Your task to perform on an android device: Open location settings Image 0: 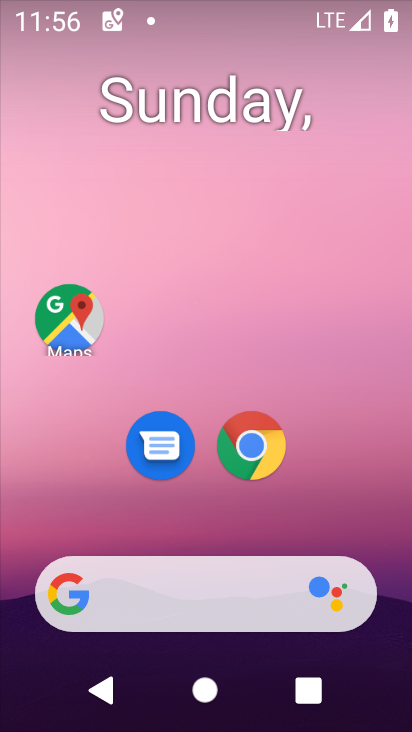
Step 0: drag from (337, 475) to (322, 241)
Your task to perform on an android device: Open location settings Image 1: 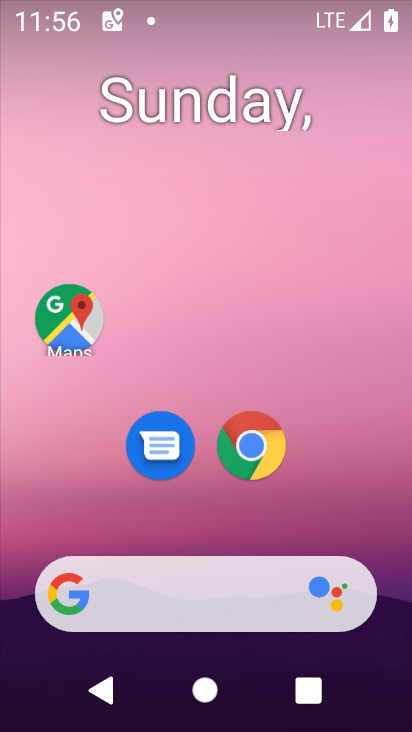
Step 1: drag from (306, 494) to (356, 94)
Your task to perform on an android device: Open location settings Image 2: 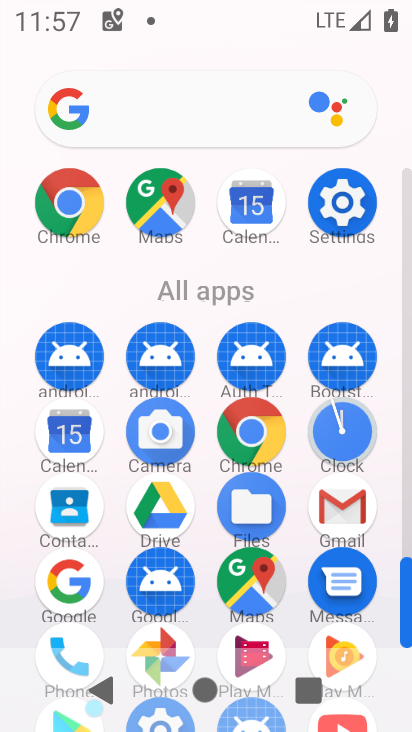
Step 2: click (350, 198)
Your task to perform on an android device: Open location settings Image 3: 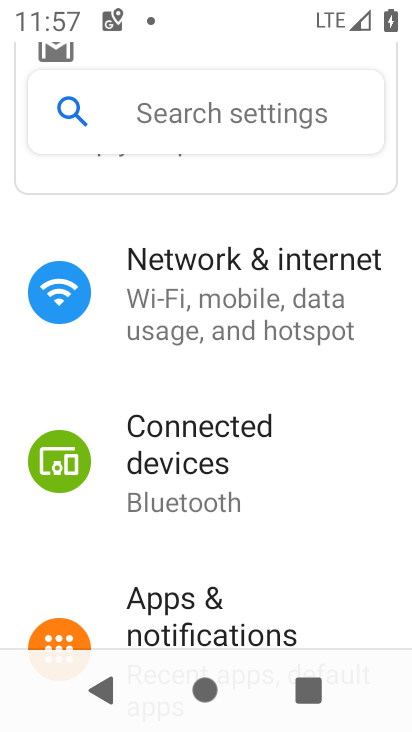
Step 3: drag from (282, 547) to (300, 221)
Your task to perform on an android device: Open location settings Image 4: 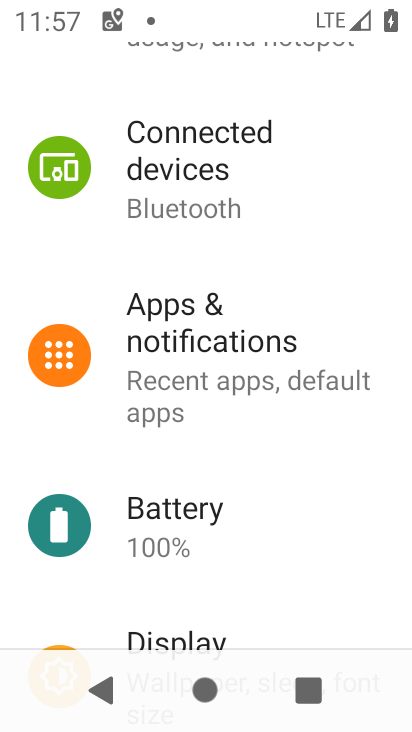
Step 4: drag from (222, 559) to (318, 227)
Your task to perform on an android device: Open location settings Image 5: 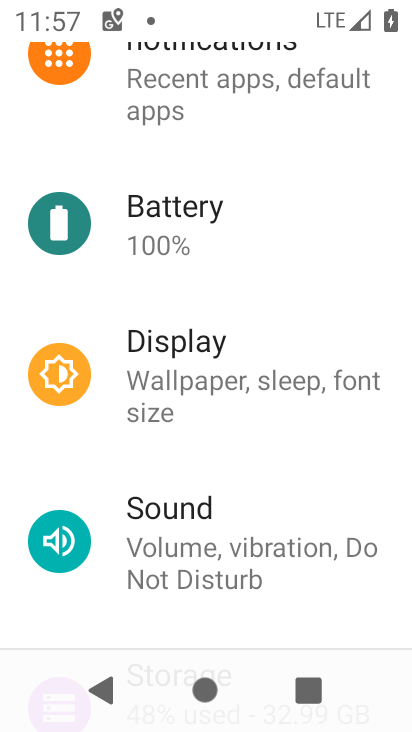
Step 5: drag from (225, 569) to (273, 232)
Your task to perform on an android device: Open location settings Image 6: 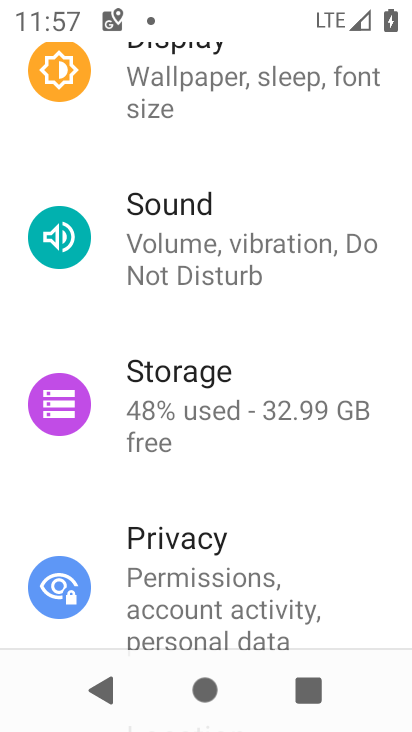
Step 6: drag from (302, 520) to (344, 124)
Your task to perform on an android device: Open location settings Image 7: 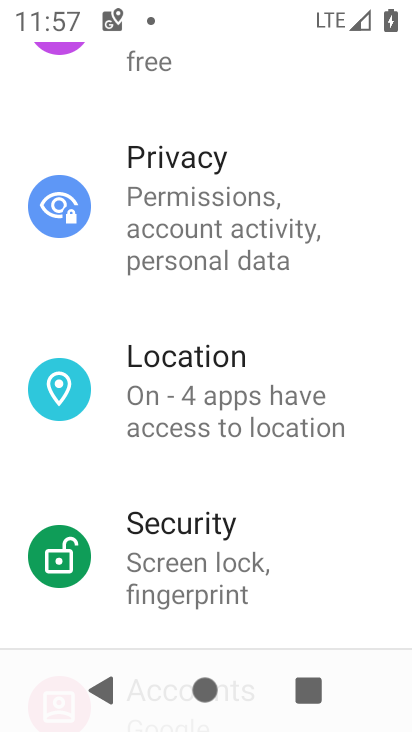
Step 7: click (313, 379)
Your task to perform on an android device: Open location settings Image 8: 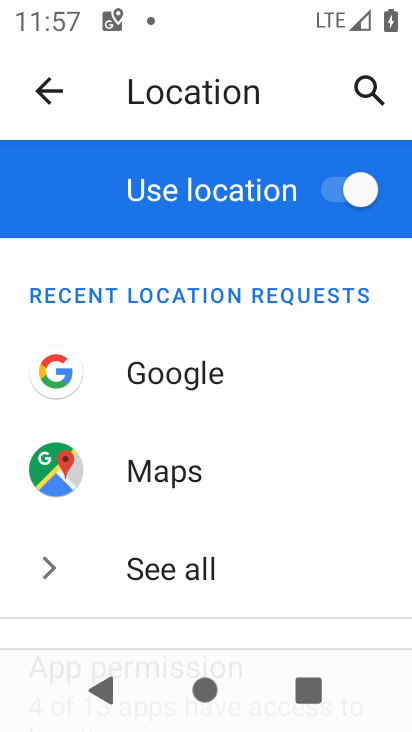
Step 8: task complete